Your task to perform on an android device: Open maps Image 0: 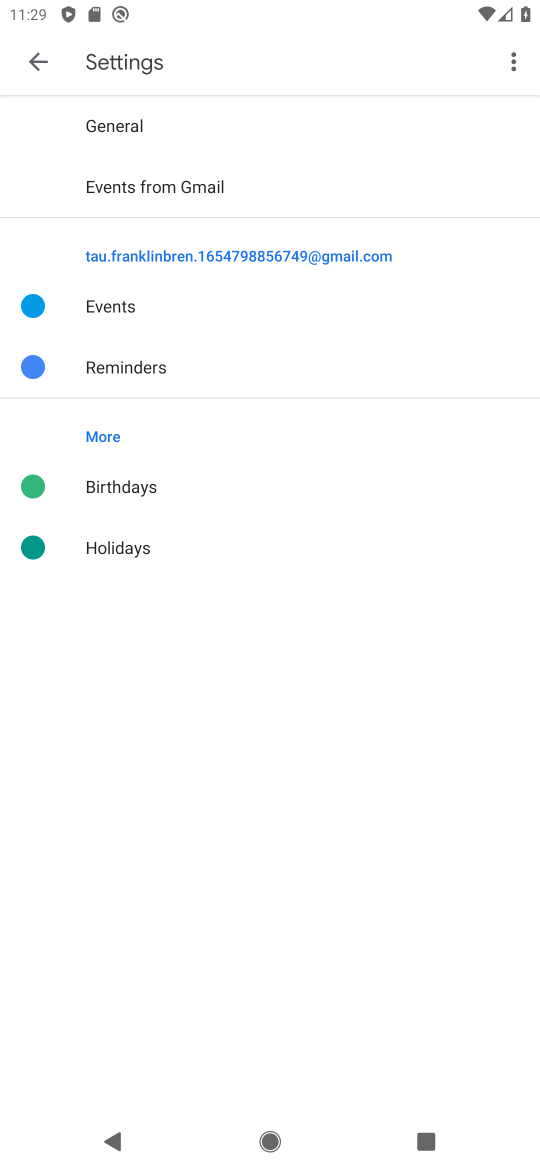
Step 0: press home button
Your task to perform on an android device: Open maps Image 1: 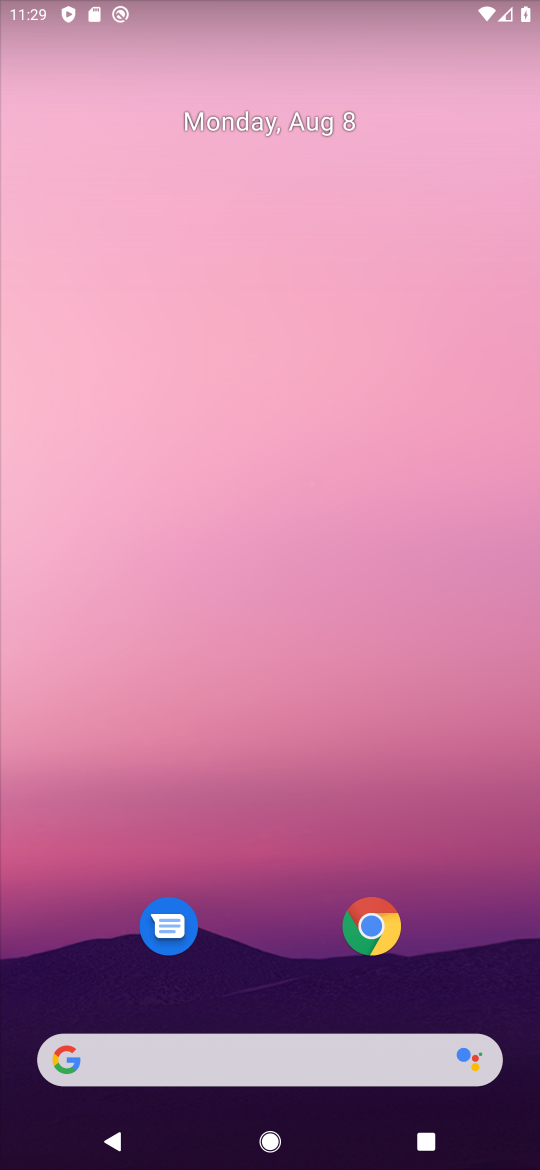
Step 1: drag from (31, 931) to (280, 310)
Your task to perform on an android device: Open maps Image 2: 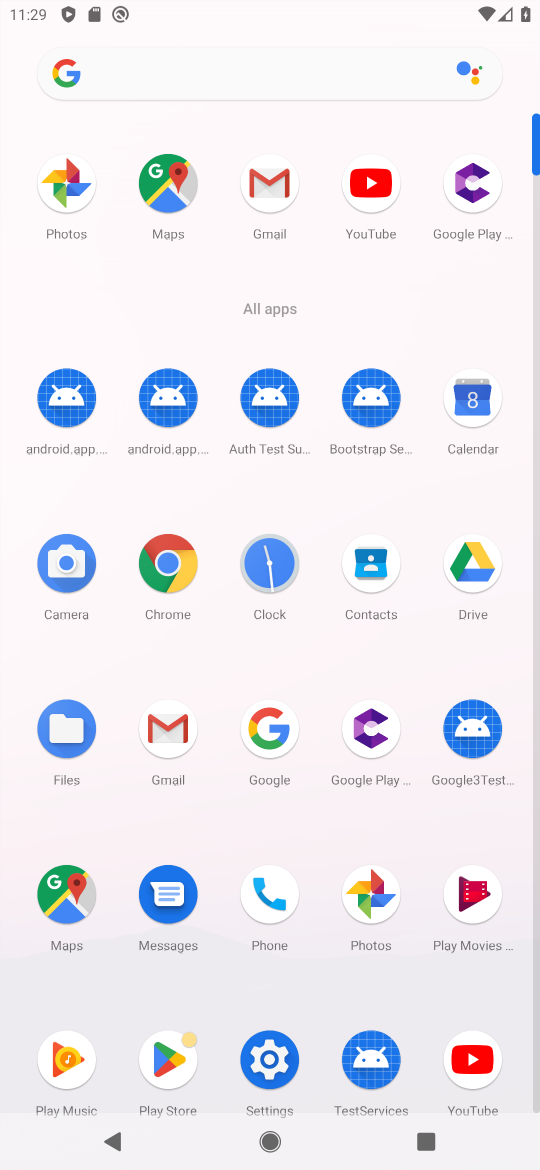
Step 2: click (53, 910)
Your task to perform on an android device: Open maps Image 3: 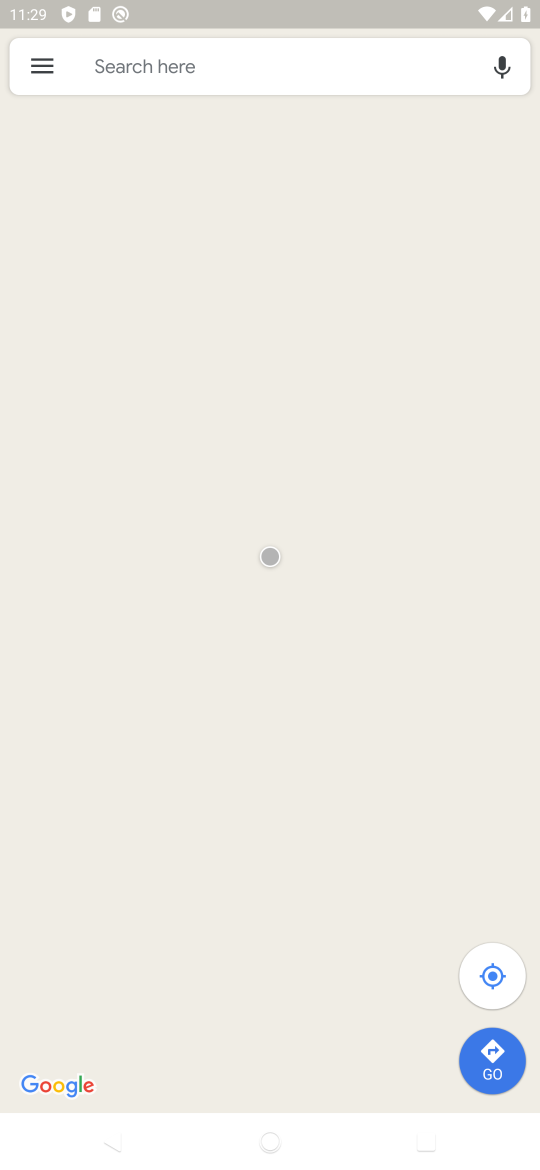
Step 3: task complete